Your task to perform on an android device: show emergency info Image 0: 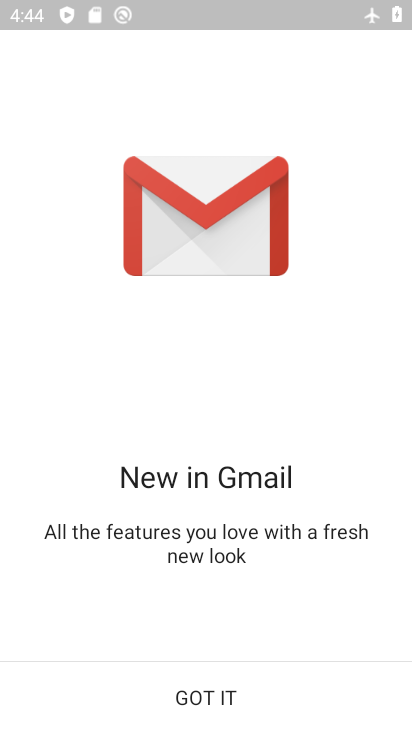
Step 0: press home button
Your task to perform on an android device: show emergency info Image 1: 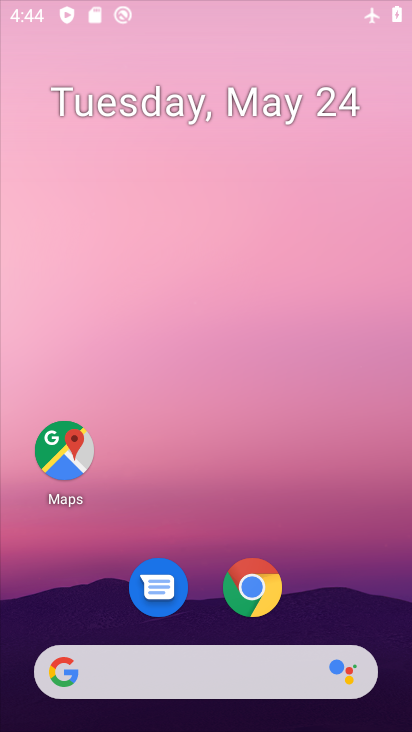
Step 1: drag from (351, 554) to (256, 99)
Your task to perform on an android device: show emergency info Image 2: 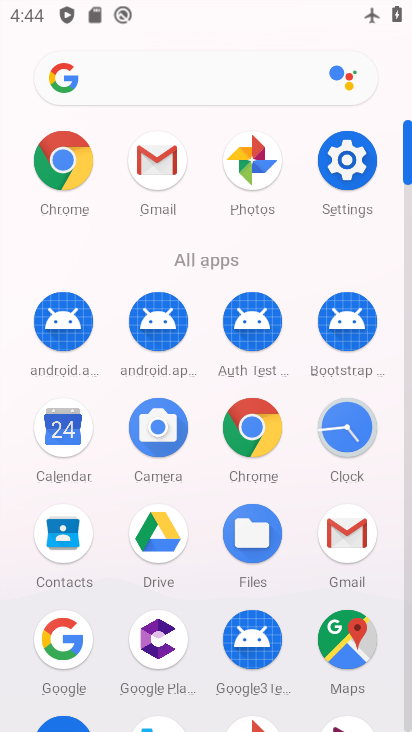
Step 2: click (349, 159)
Your task to perform on an android device: show emergency info Image 3: 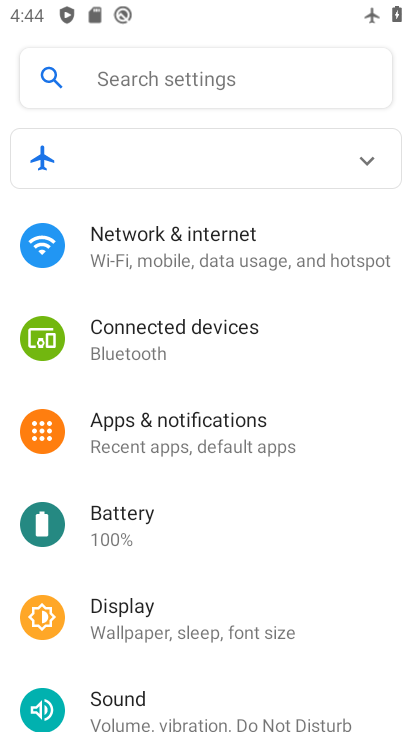
Step 3: drag from (291, 625) to (316, 114)
Your task to perform on an android device: show emergency info Image 4: 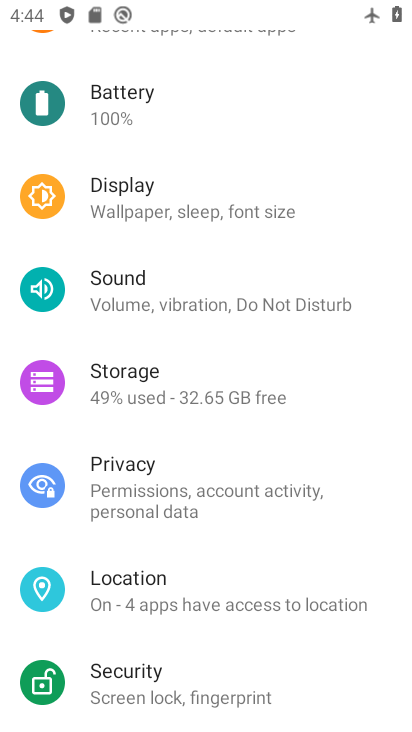
Step 4: drag from (228, 629) to (294, 144)
Your task to perform on an android device: show emergency info Image 5: 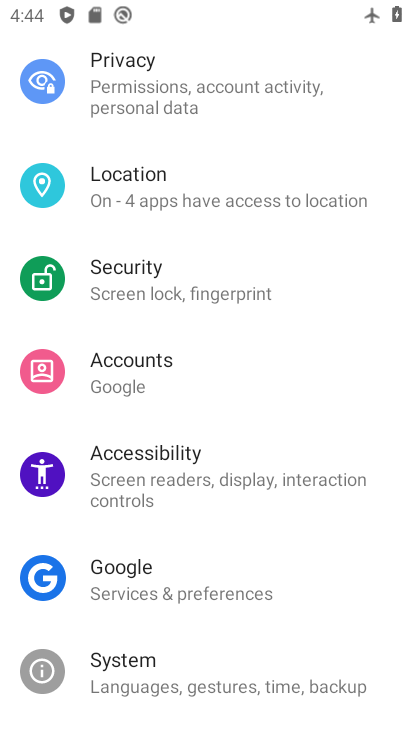
Step 5: drag from (231, 676) to (277, 232)
Your task to perform on an android device: show emergency info Image 6: 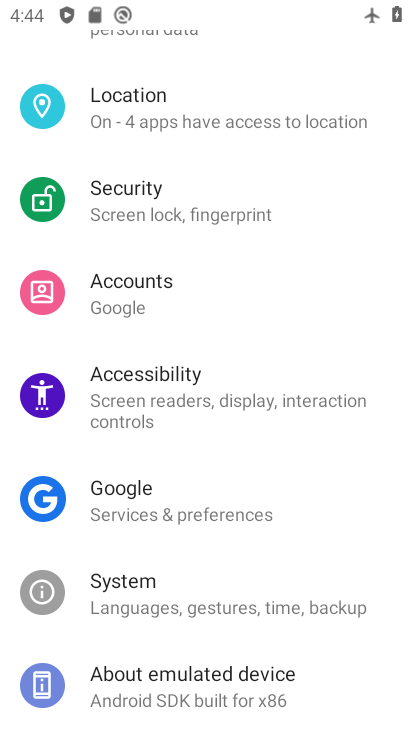
Step 6: click (223, 688)
Your task to perform on an android device: show emergency info Image 7: 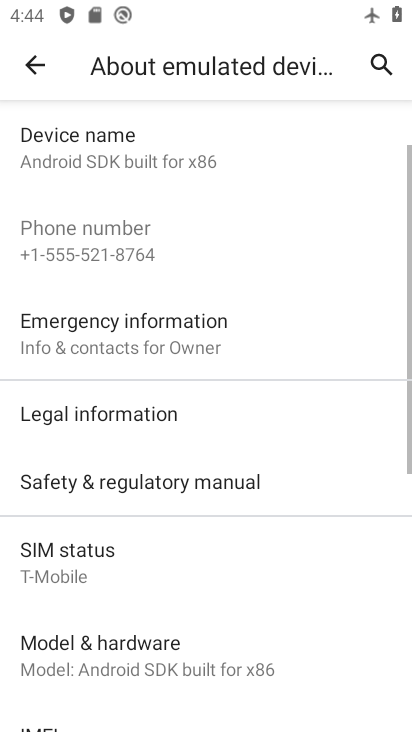
Step 7: click (231, 332)
Your task to perform on an android device: show emergency info Image 8: 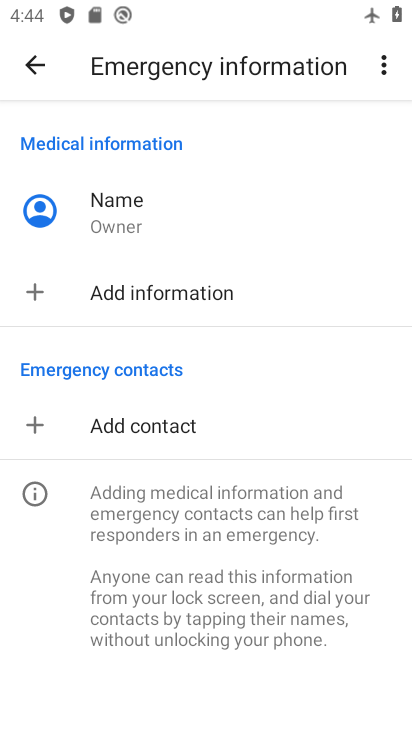
Step 8: task complete